Your task to perform on an android device: create a new album in the google photos Image 0: 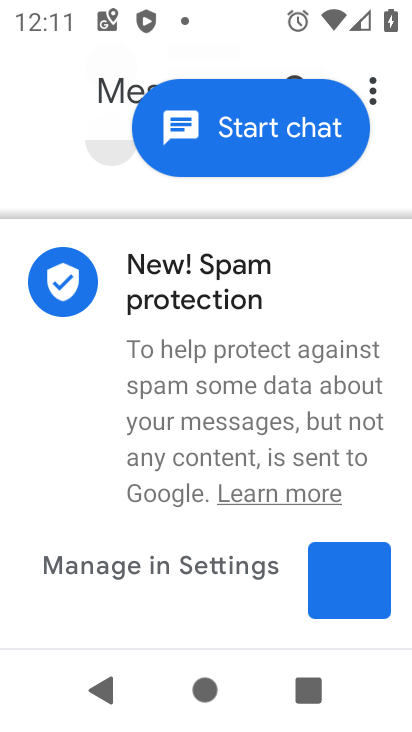
Step 0: press home button
Your task to perform on an android device: create a new album in the google photos Image 1: 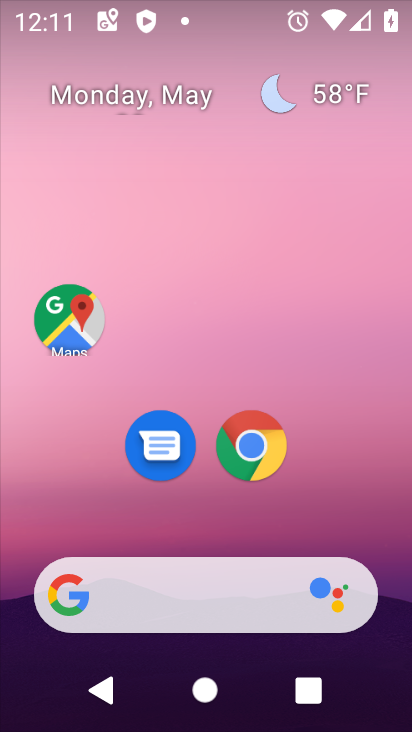
Step 1: drag from (199, 533) to (211, 46)
Your task to perform on an android device: create a new album in the google photos Image 2: 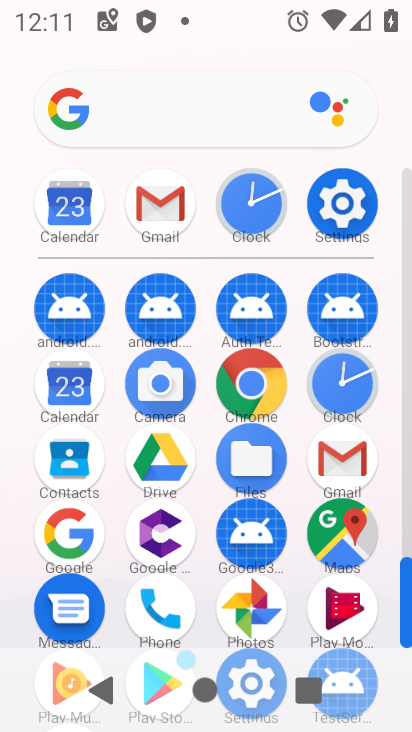
Step 2: click (246, 592)
Your task to perform on an android device: create a new album in the google photos Image 3: 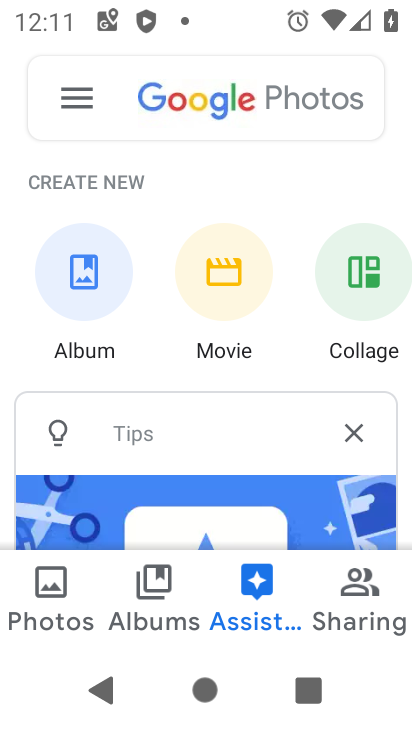
Step 3: click (136, 583)
Your task to perform on an android device: create a new album in the google photos Image 4: 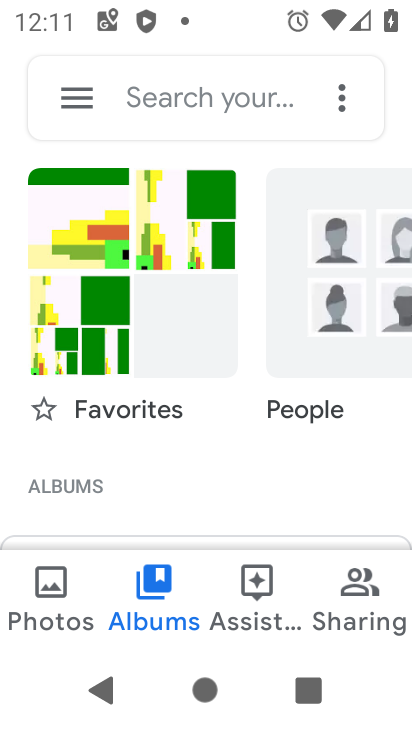
Step 4: click (341, 99)
Your task to perform on an android device: create a new album in the google photos Image 5: 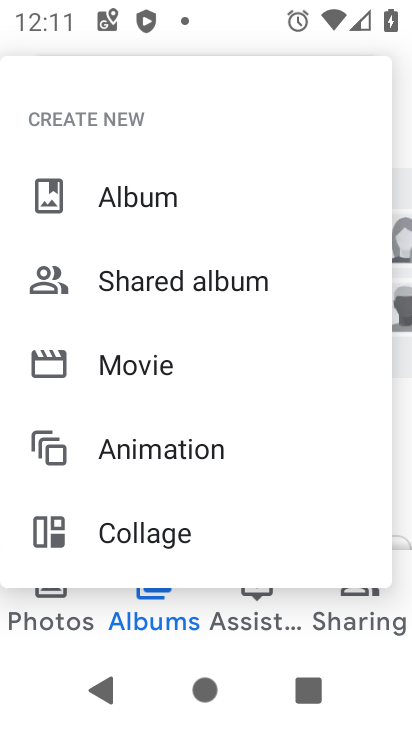
Step 5: click (190, 200)
Your task to perform on an android device: create a new album in the google photos Image 6: 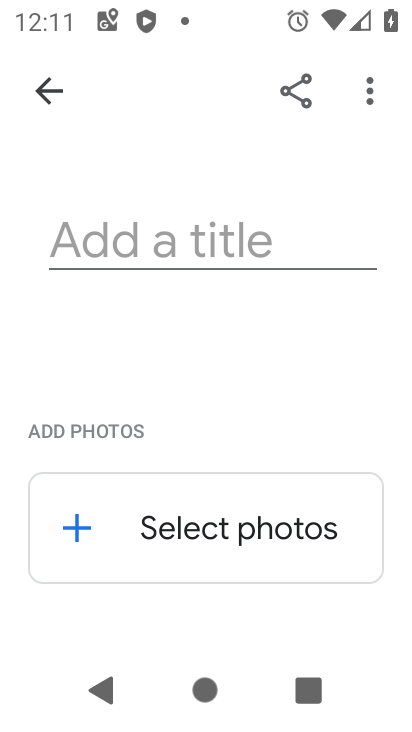
Step 6: click (78, 529)
Your task to perform on an android device: create a new album in the google photos Image 7: 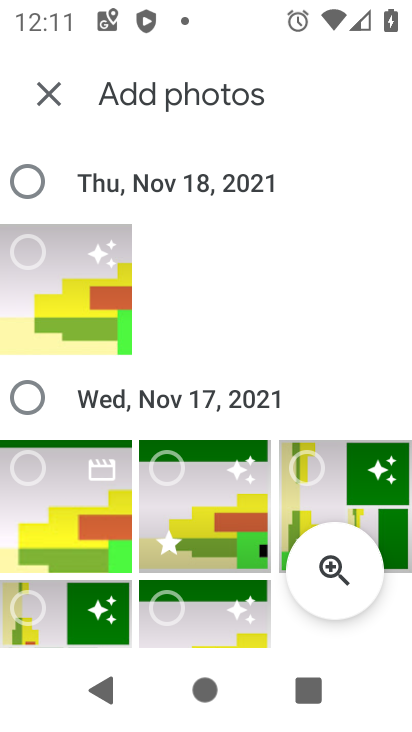
Step 7: click (33, 172)
Your task to perform on an android device: create a new album in the google photos Image 8: 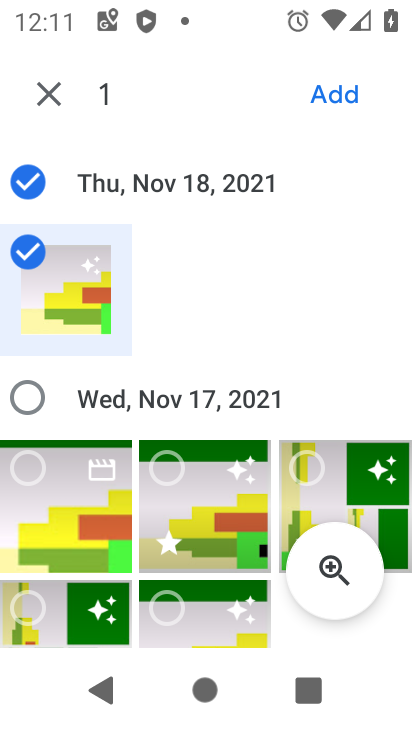
Step 8: click (179, 533)
Your task to perform on an android device: create a new album in the google photos Image 9: 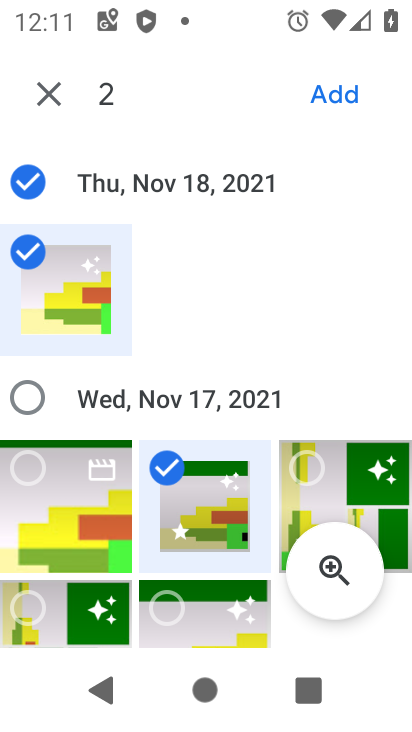
Step 9: click (199, 621)
Your task to perform on an android device: create a new album in the google photos Image 10: 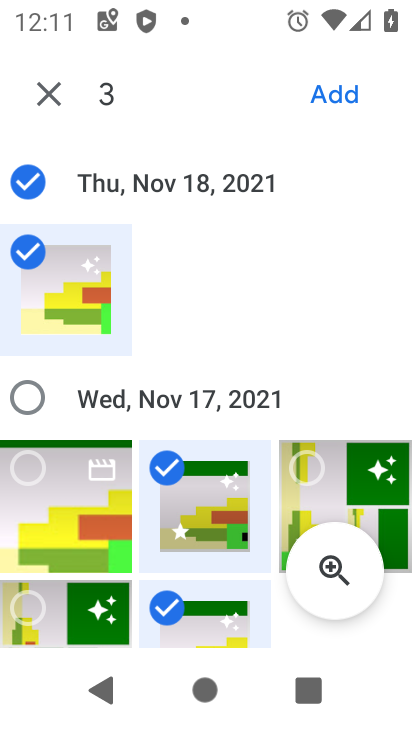
Step 10: click (344, 95)
Your task to perform on an android device: create a new album in the google photos Image 11: 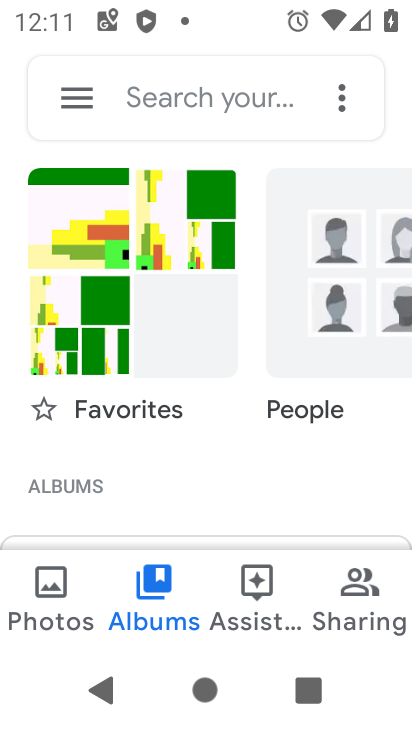
Step 11: click (335, 96)
Your task to perform on an android device: create a new album in the google photos Image 12: 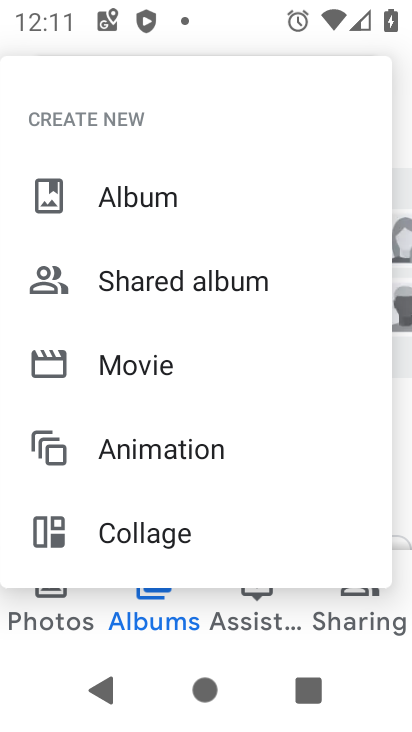
Step 12: click (182, 188)
Your task to perform on an android device: create a new album in the google photos Image 13: 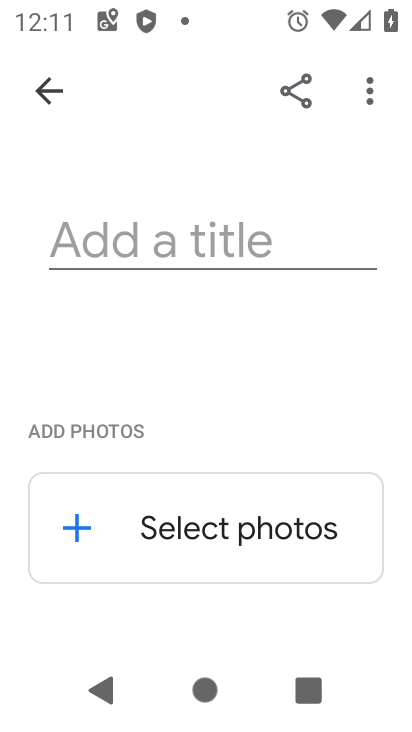
Step 13: click (81, 524)
Your task to perform on an android device: create a new album in the google photos Image 14: 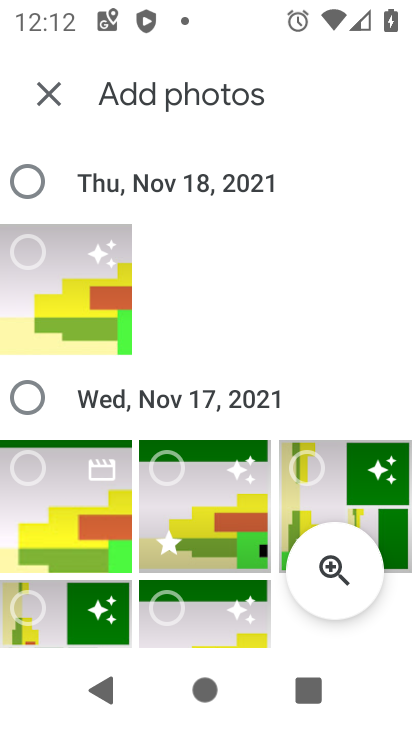
Step 14: click (58, 333)
Your task to perform on an android device: create a new album in the google photos Image 15: 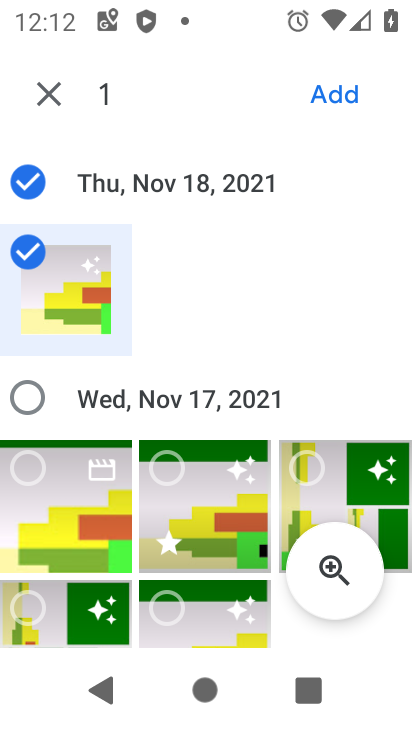
Step 15: click (80, 558)
Your task to perform on an android device: create a new album in the google photos Image 16: 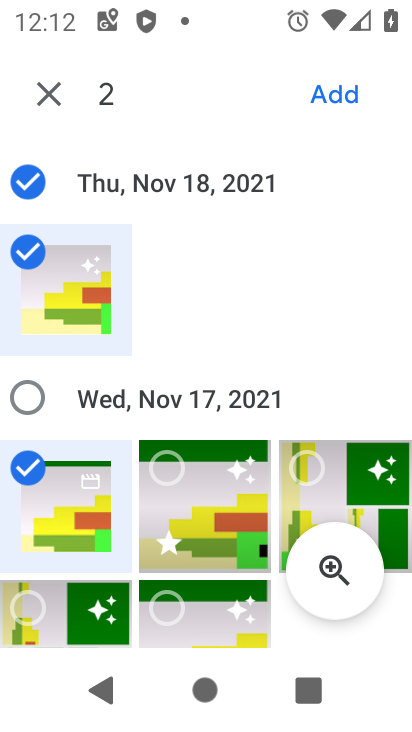
Step 16: click (80, 630)
Your task to perform on an android device: create a new album in the google photos Image 17: 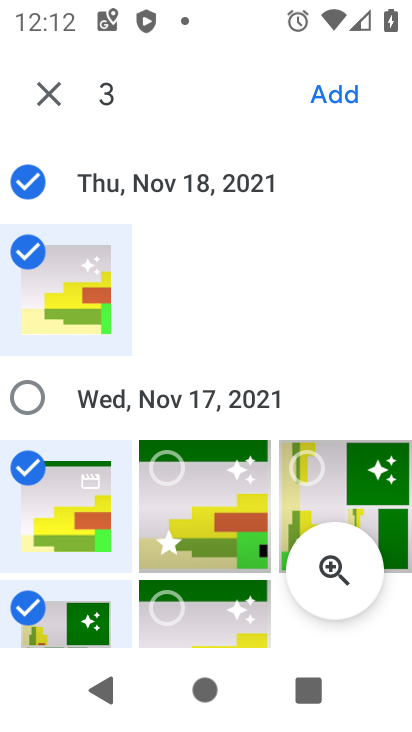
Step 17: click (331, 96)
Your task to perform on an android device: create a new album in the google photos Image 18: 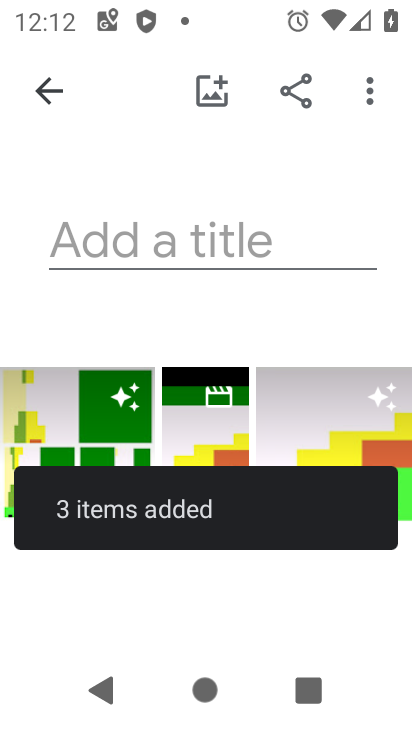
Step 18: click (184, 250)
Your task to perform on an android device: create a new album in the google photos Image 19: 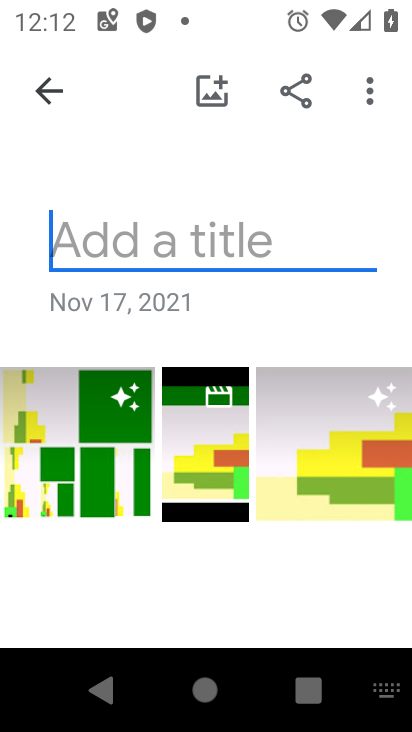
Step 19: type "gbbgf"
Your task to perform on an android device: create a new album in the google photos Image 20: 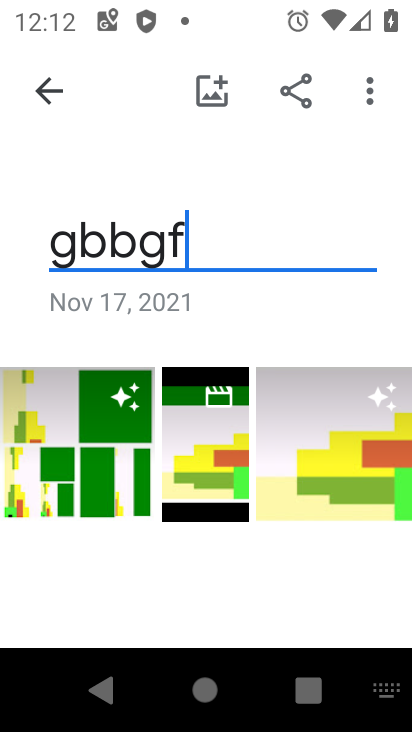
Step 20: task complete